Your task to perform on an android device: toggle notification dots Image 0: 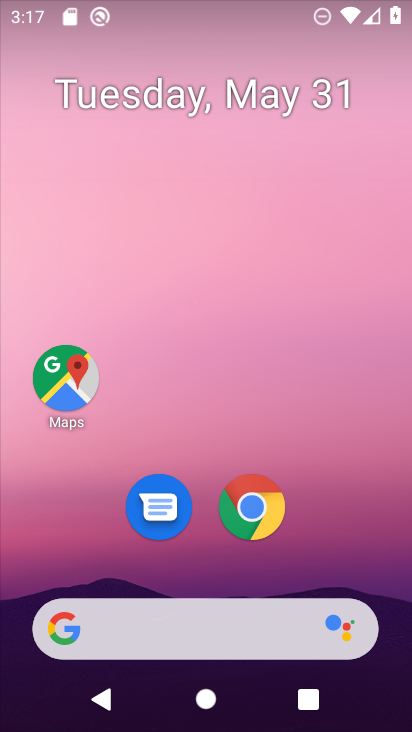
Step 0: drag from (164, 631) to (225, 20)
Your task to perform on an android device: toggle notification dots Image 1: 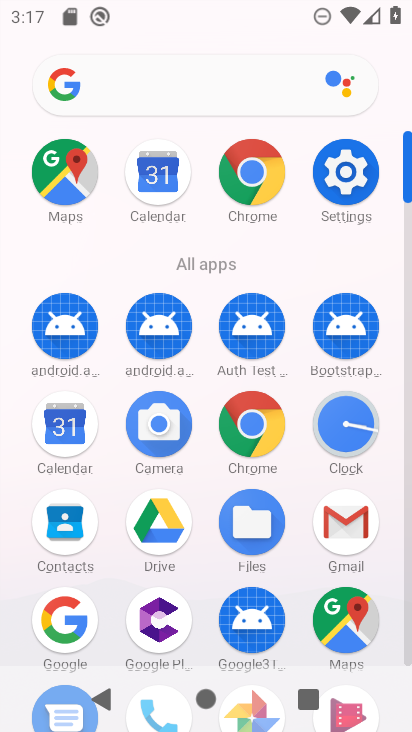
Step 1: click (364, 172)
Your task to perform on an android device: toggle notification dots Image 2: 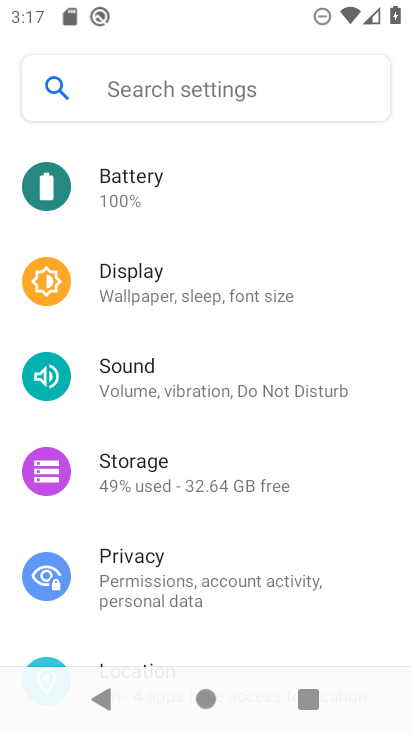
Step 2: drag from (208, 635) to (254, 170)
Your task to perform on an android device: toggle notification dots Image 3: 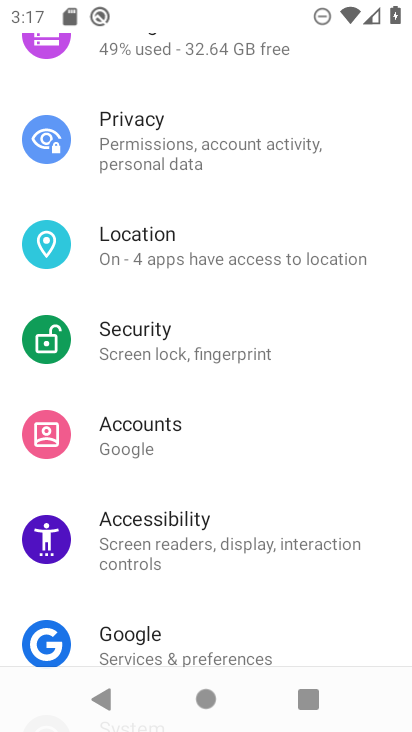
Step 3: drag from (264, 121) to (199, 557)
Your task to perform on an android device: toggle notification dots Image 4: 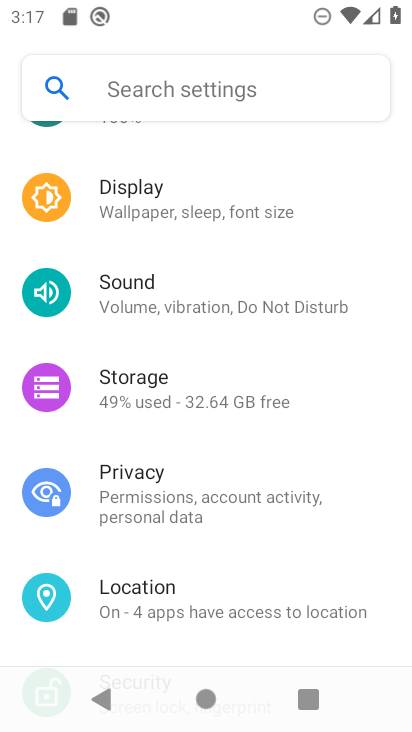
Step 4: drag from (215, 568) to (280, 181)
Your task to perform on an android device: toggle notification dots Image 5: 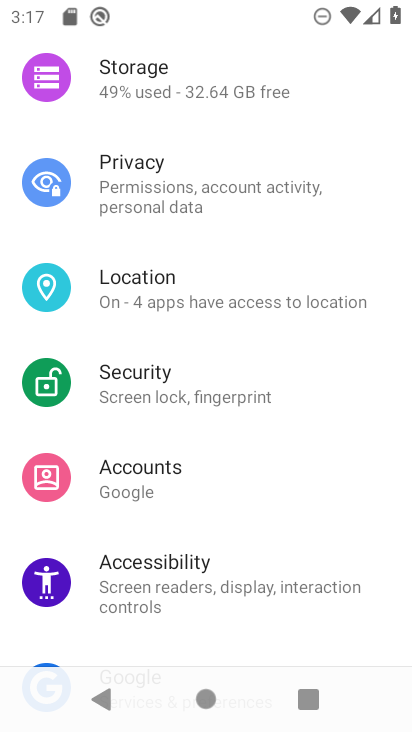
Step 5: drag from (188, 609) to (94, 688)
Your task to perform on an android device: toggle notification dots Image 6: 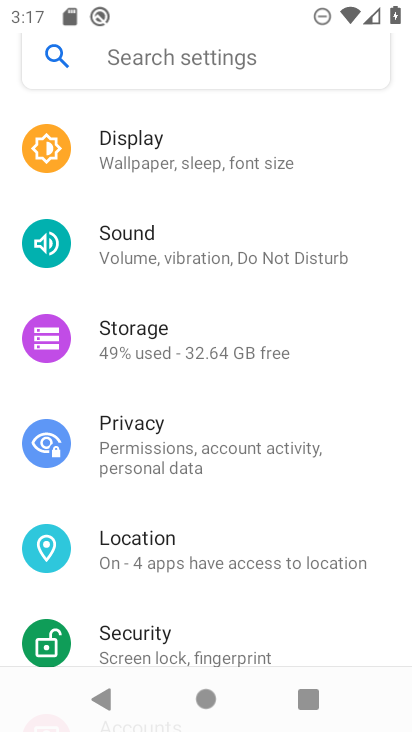
Step 6: drag from (237, 223) to (149, 689)
Your task to perform on an android device: toggle notification dots Image 7: 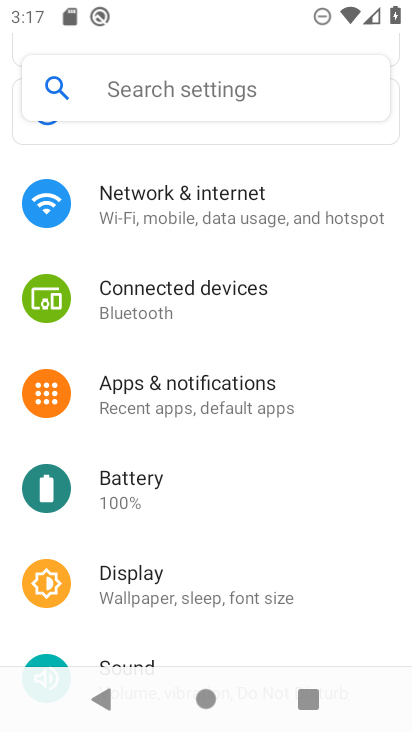
Step 7: click (227, 402)
Your task to perform on an android device: toggle notification dots Image 8: 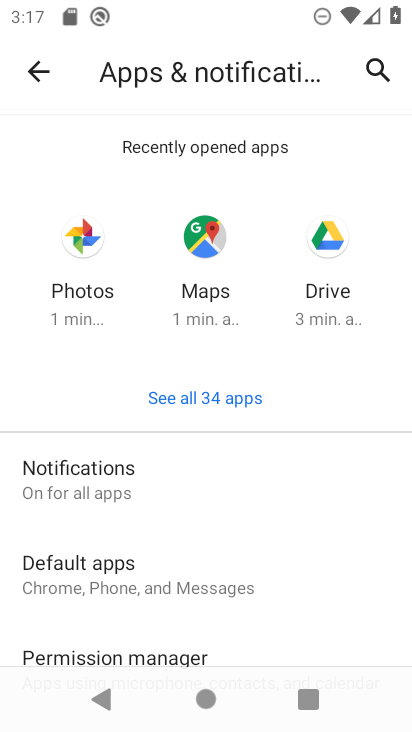
Step 8: click (136, 501)
Your task to perform on an android device: toggle notification dots Image 9: 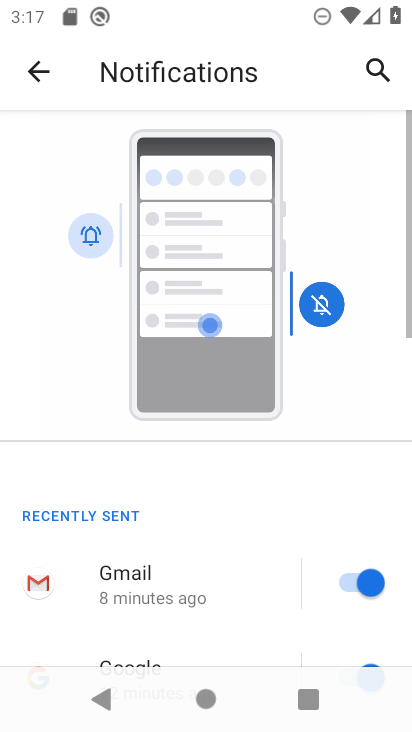
Step 9: drag from (294, 622) to (333, 202)
Your task to perform on an android device: toggle notification dots Image 10: 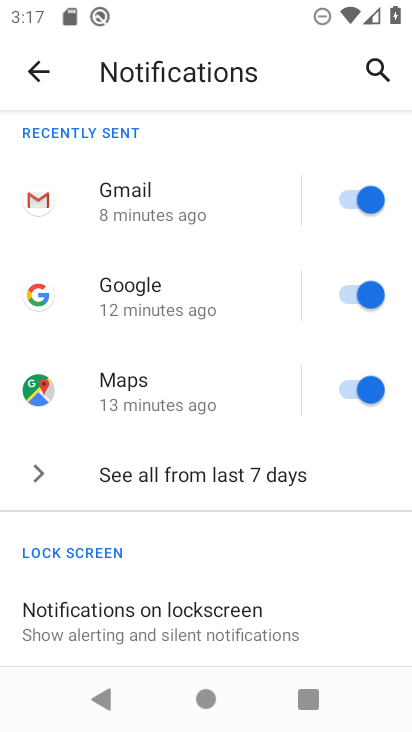
Step 10: drag from (231, 624) to (228, 278)
Your task to perform on an android device: toggle notification dots Image 11: 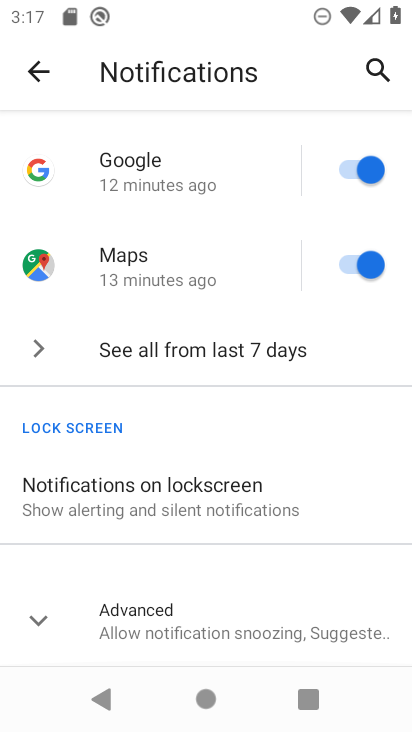
Step 11: click (178, 627)
Your task to perform on an android device: toggle notification dots Image 12: 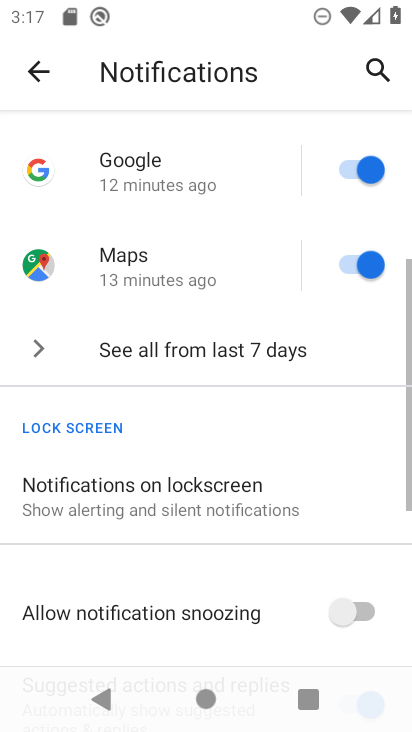
Step 12: drag from (206, 588) to (284, 219)
Your task to perform on an android device: toggle notification dots Image 13: 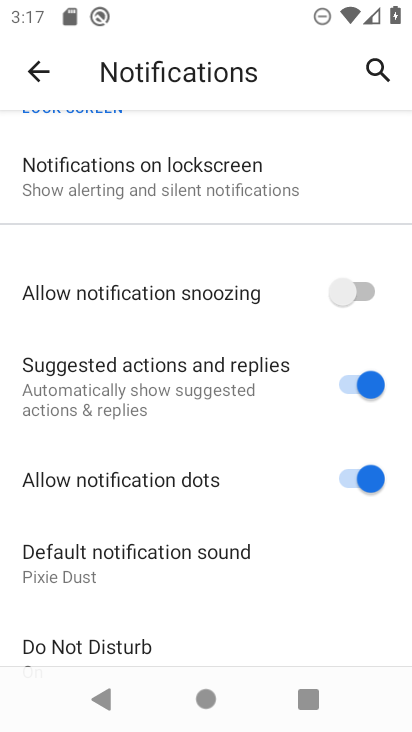
Step 13: click (365, 485)
Your task to perform on an android device: toggle notification dots Image 14: 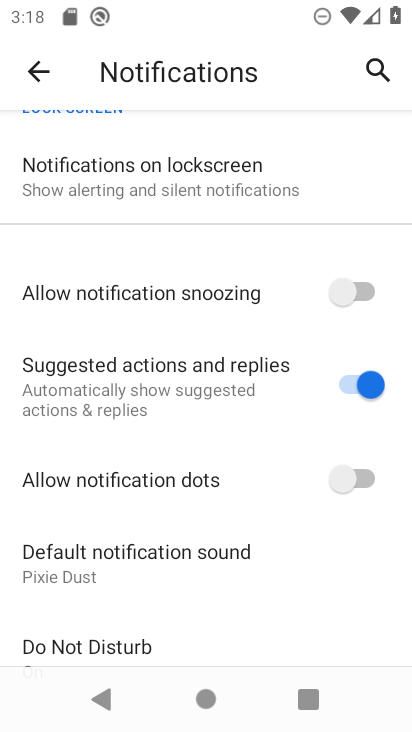
Step 14: task complete